Your task to perform on an android device: allow cookies in the chrome app Image 0: 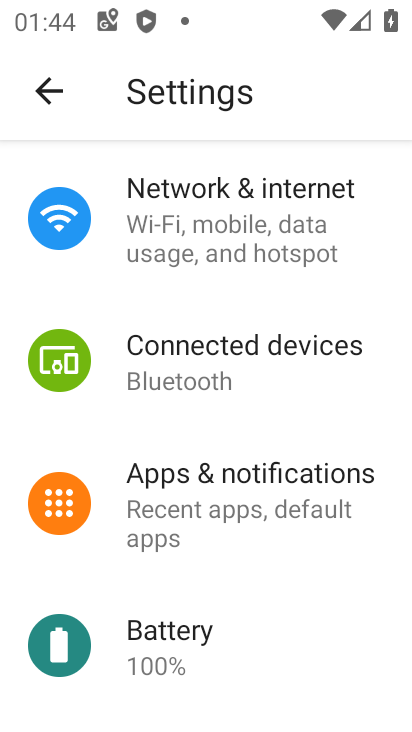
Step 0: press home button
Your task to perform on an android device: allow cookies in the chrome app Image 1: 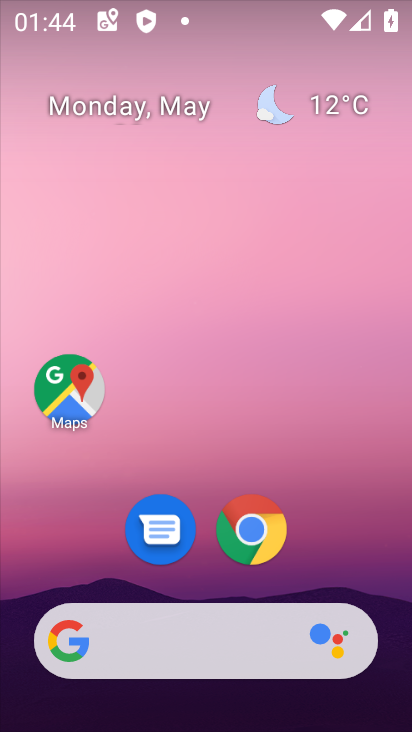
Step 1: click (255, 536)
Your task to perform on an android device: allow cookies in the chrome app Image 2: 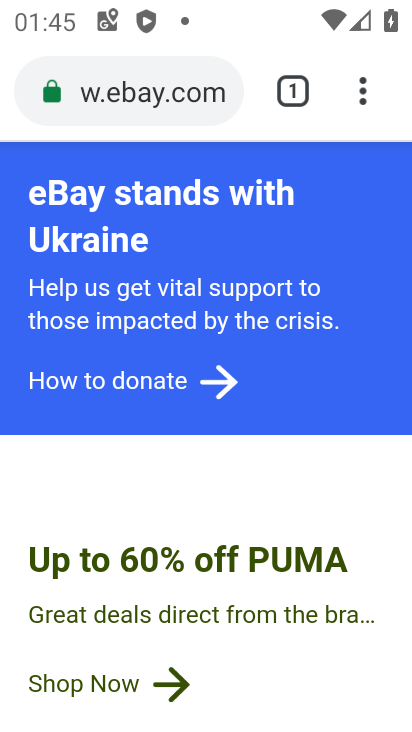
Step 2: click (360, 93)
Your task to perform on an android device: allow cookies in the chrome app Image 3: 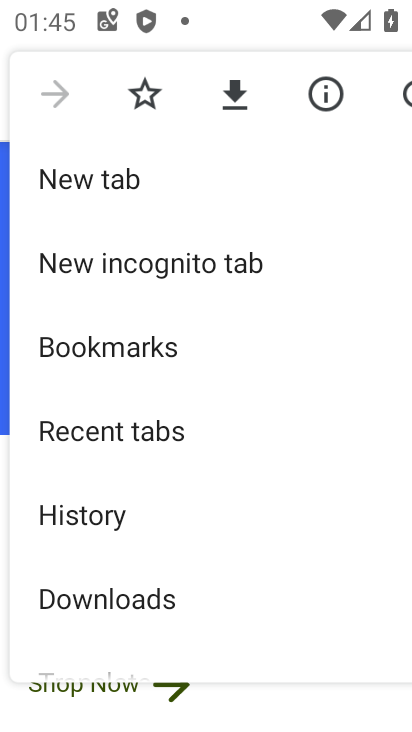
Step 3: drag from (205, 629) to (229, 228)
Your task to perform on an android device: allow cookies in the chrome app Image 4: 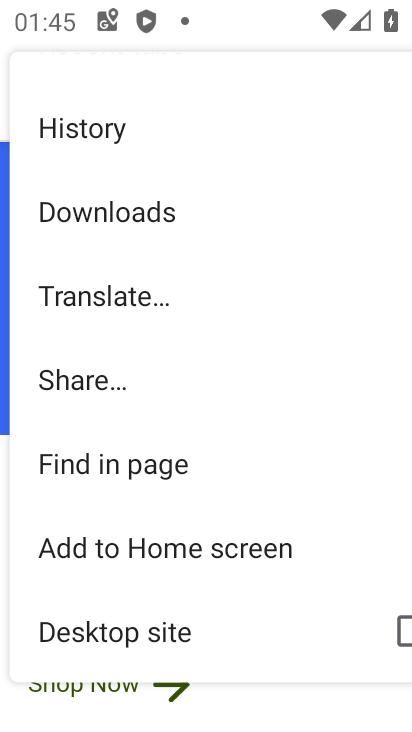
Step 4: drag from (279, 597) to (279, 201)
Your task to perform on an android device: allow cookies in the chrome app Image 5: 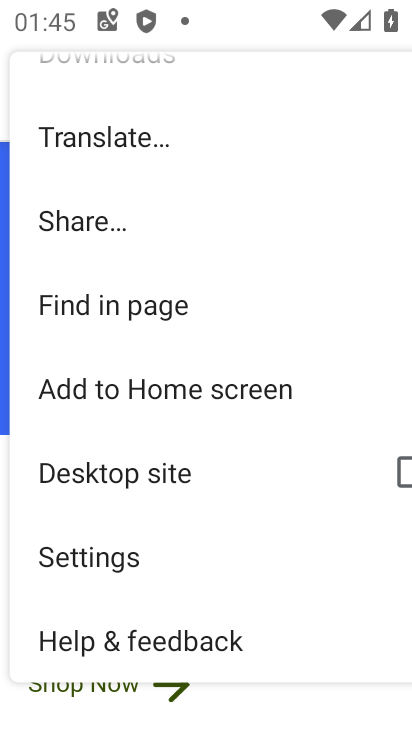
Step 5: click (90, 555)
Your task to perform on an android device: allow cookies in the chrome app Image 6: 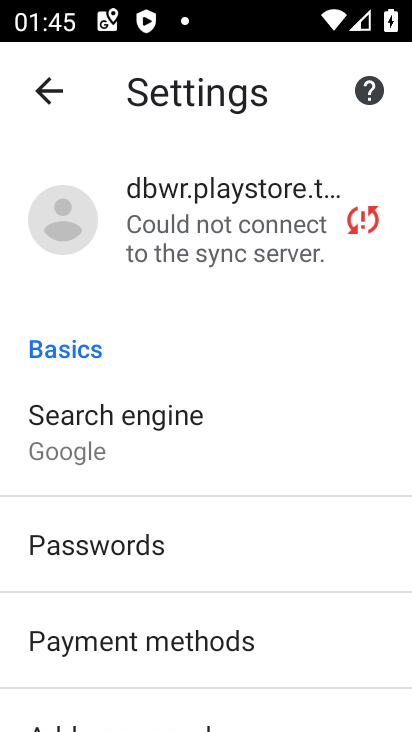
Step 6: drag from (277, 622) to (248, 161)
Your task to perform on an android device: allow cookies in the chrome app Image 7: 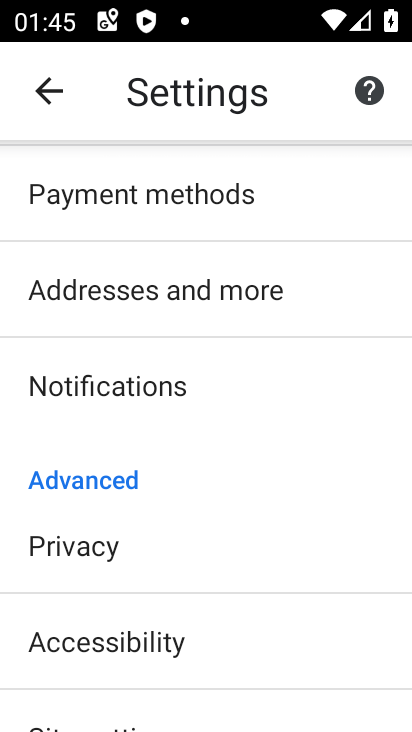
Step 7: drag from (214, 637) to (226, 270)
Your task to perform on an android device: allow cookies in the chrome app Image 8: 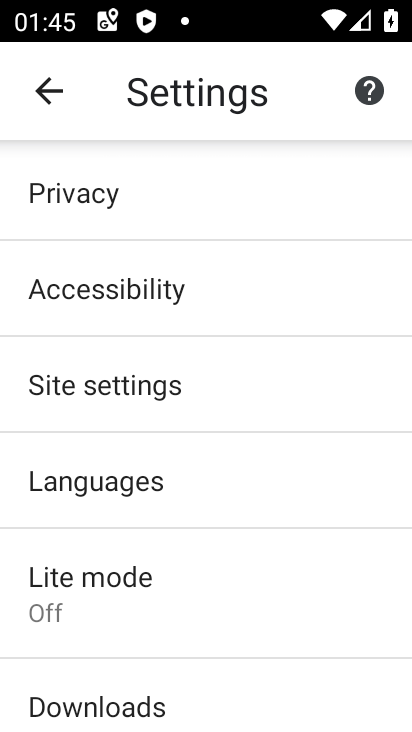
Step 8: click (76, 393)
Your task to perform on an android device: allow cookies in the chrome app Image 9: 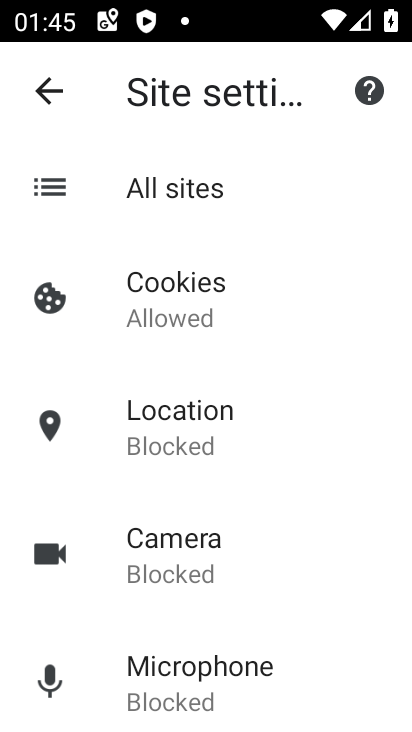
Step 9: click (161, 289)
Your task to perform on an android device: allow cookies in the chrome app Image 10: 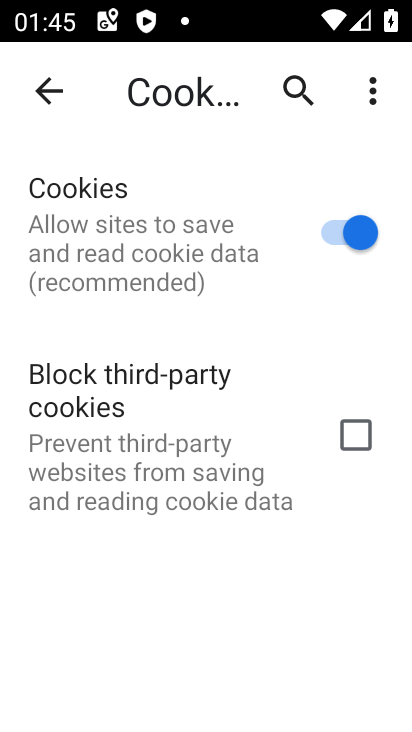
Step 10: task complete